Your task to perform on an android device: toggle javascript in the chrome app Image 0: 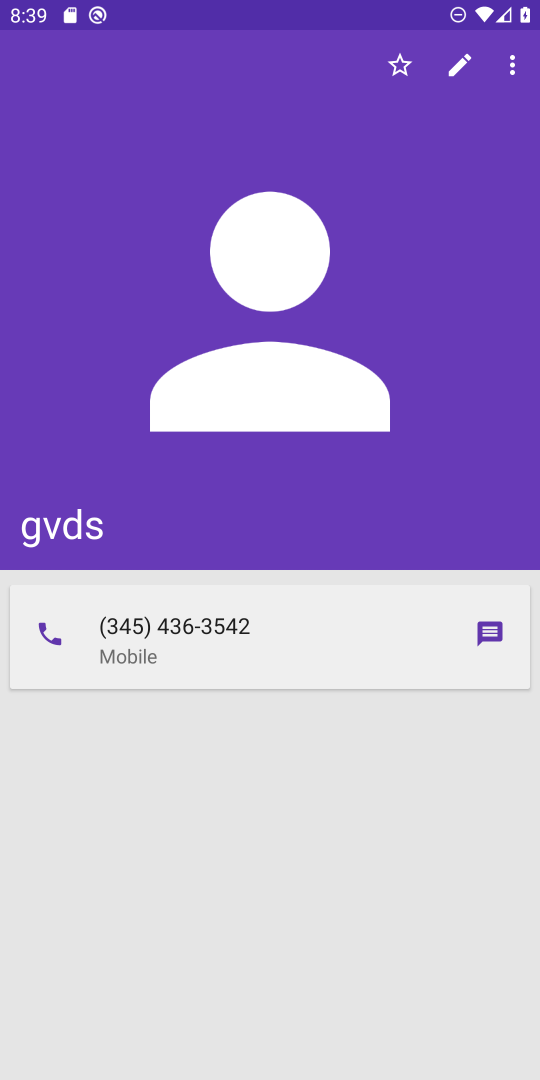
Step 0: press home button
Your task to perform on an android device: toggle javascript in the chrome app Image 1: 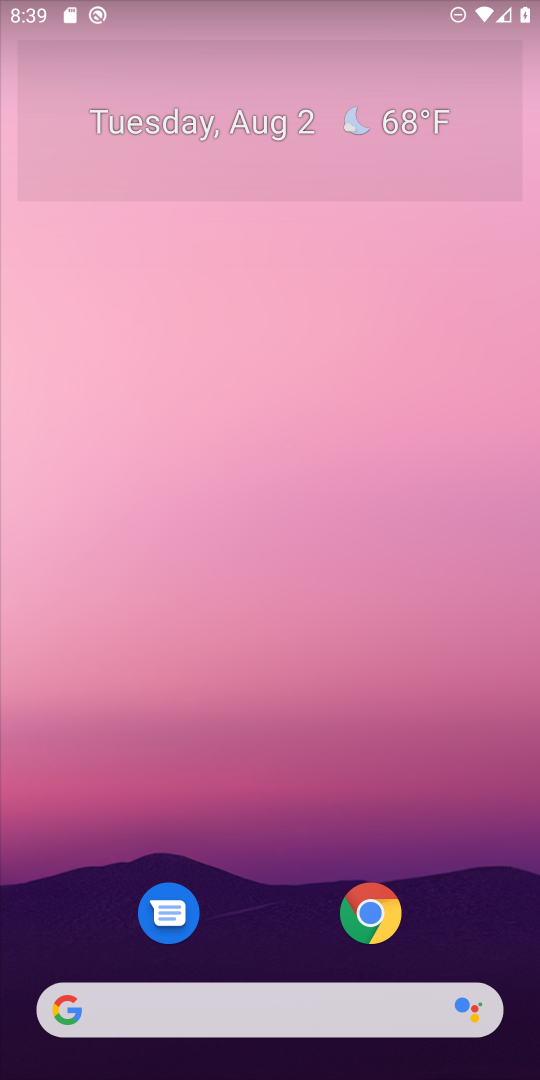
Step 1: drag from (261, 830) to (393, 22)
Your task to perform on an android device: toggle javascript in the chrome app Image 2: 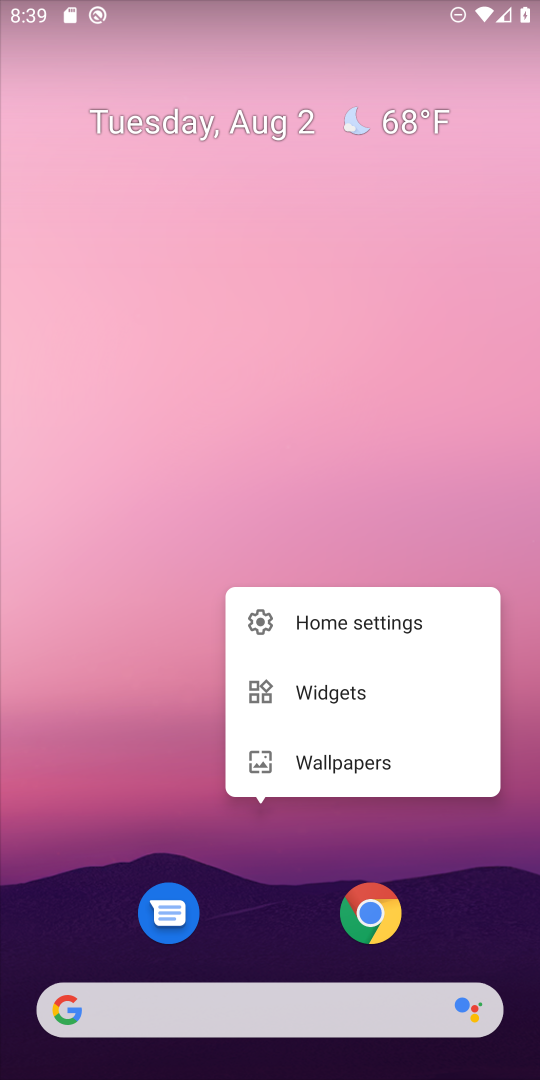
Step 2: click (210, 505)
Your task to perform on an android device: toggle javascript in the chrome app Image 3: 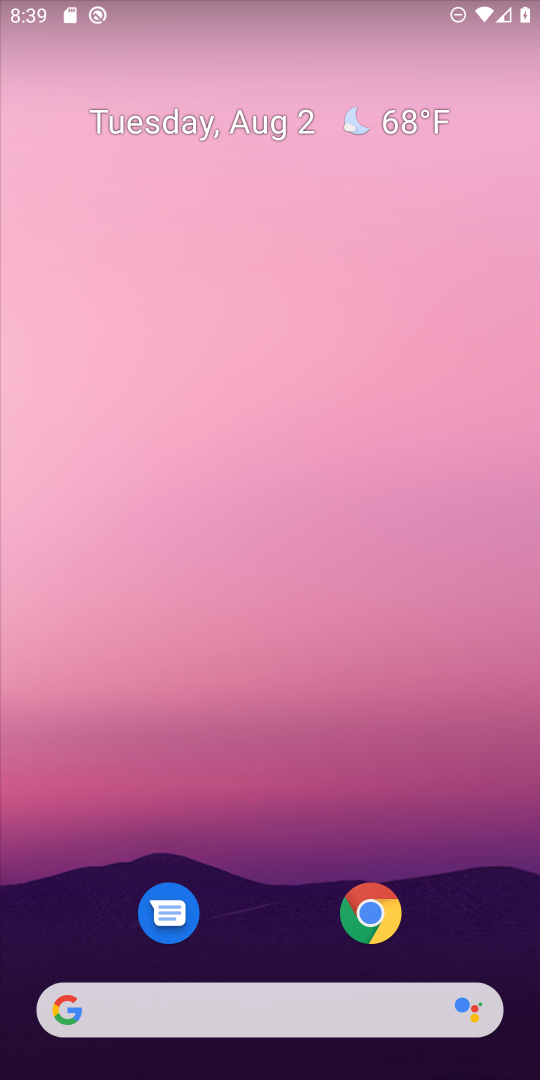
Step 3: click (369, 909)
Your task to perform on an android device: toggle javascript in the chrome app Image 4: 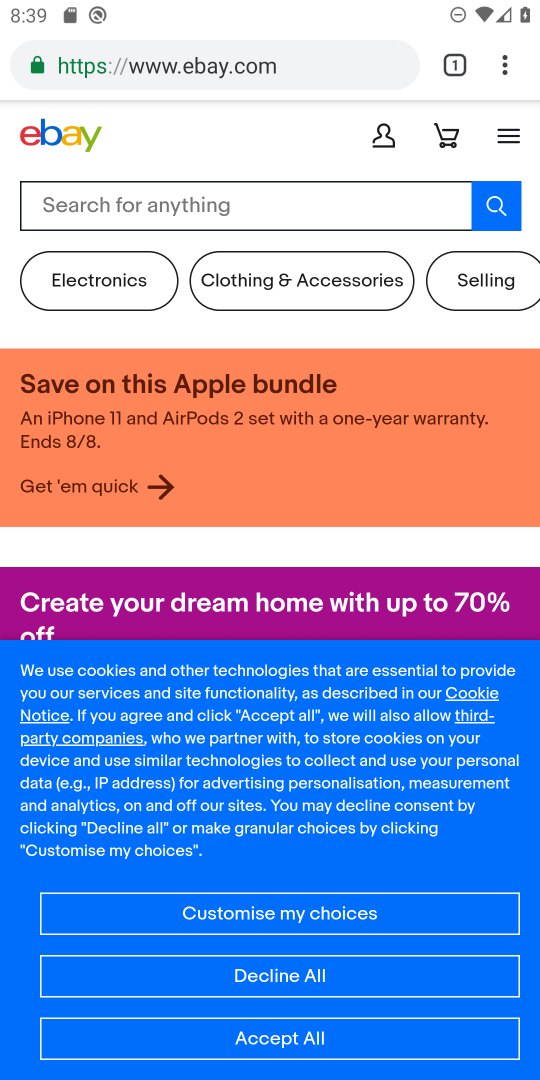
Step 4: click (514, 72)
Your task to perform on an android device: toggle javascript in the chrome app Image 5: 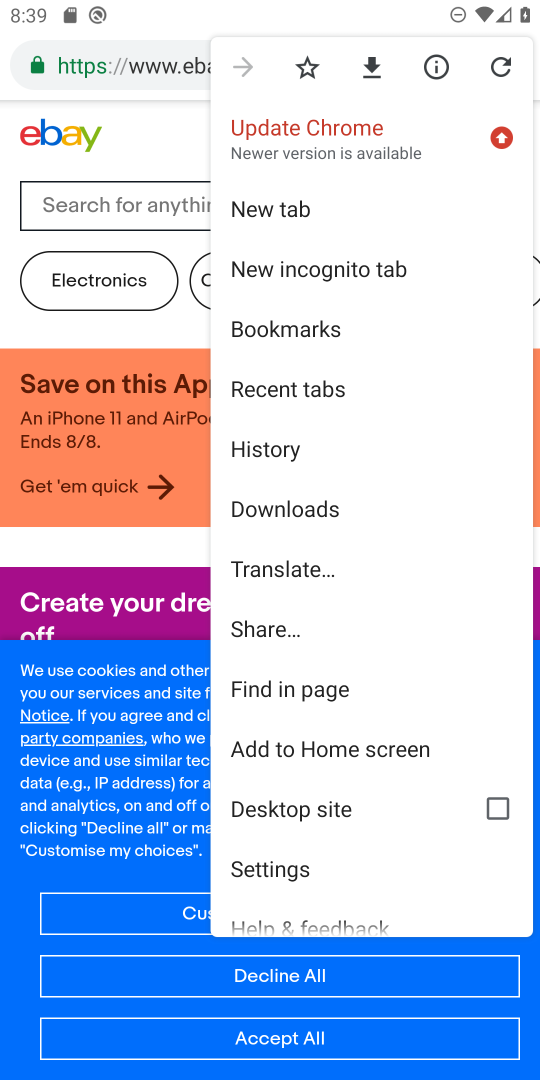
Step 5: click (277, 873)
Your task to perform on an android device: toggle javascript in the chrome app Image 6: 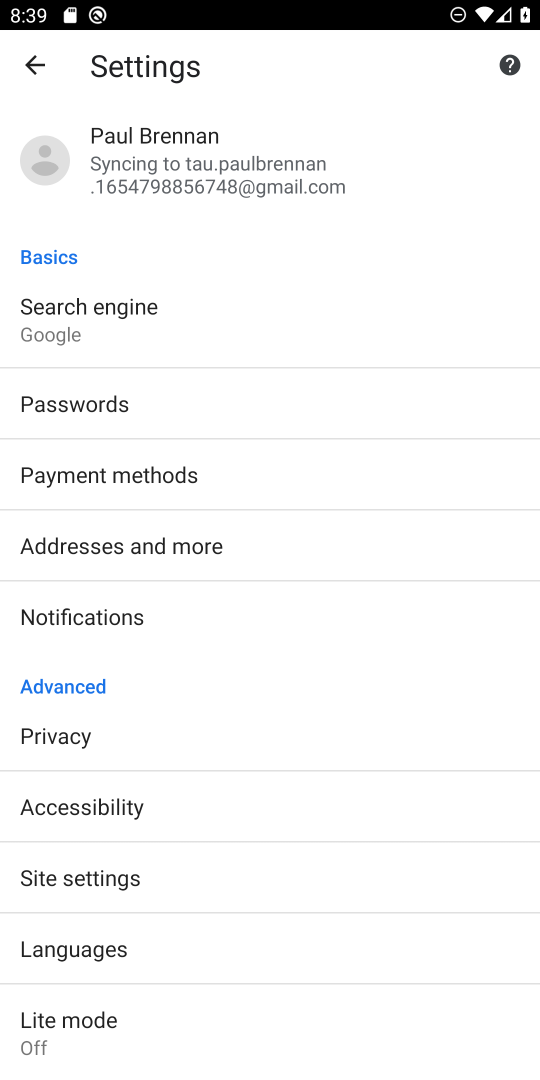
Step 6: task complete